Your task to perform on an android device: Check the weather Image 0: 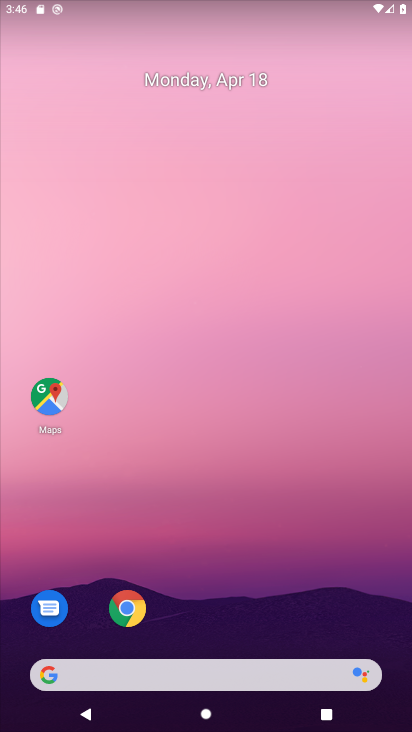
Step 0: drag from (331, 234) to (338, 162)
Your task to perform on an android device: Check the weather Image 1: 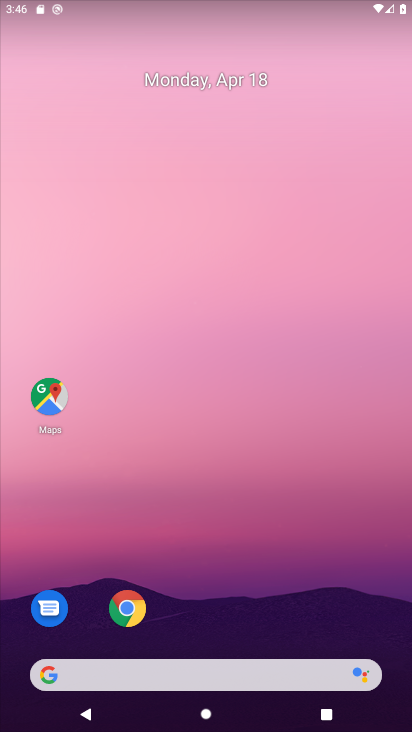
Step 1: drag from (341, 222) to (343, 155)
Your task to perform on an android device: Check the weather Image 2: 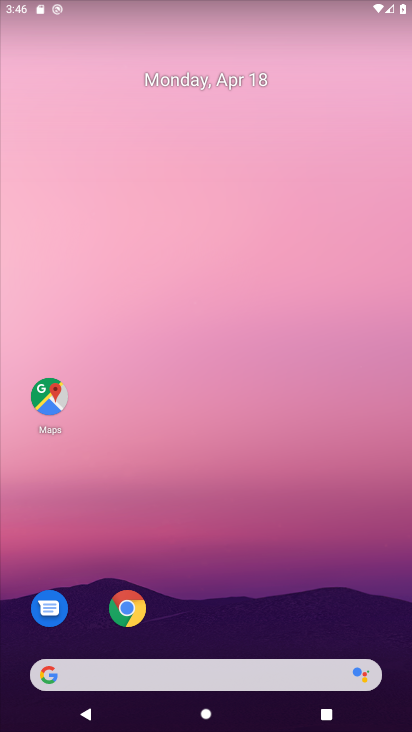
Step 2: drag from (28, 259) to (386, 225)
Your task to perform on an android device: Check the weather Image 3: 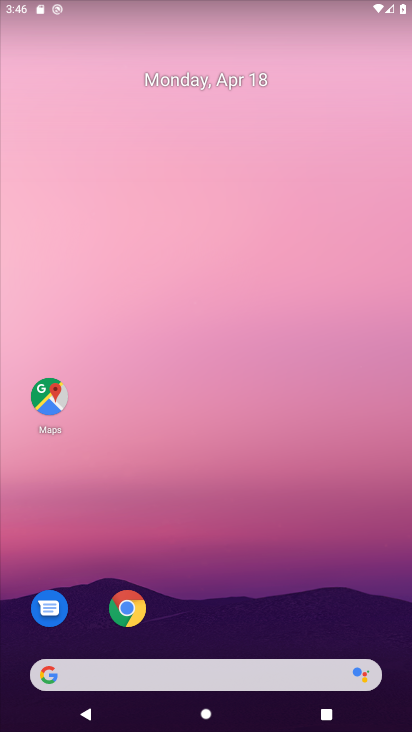
Step 3: drag from (14, 265) to (324, 296)
Your task to perform on an android device: Check the weather Image 4: 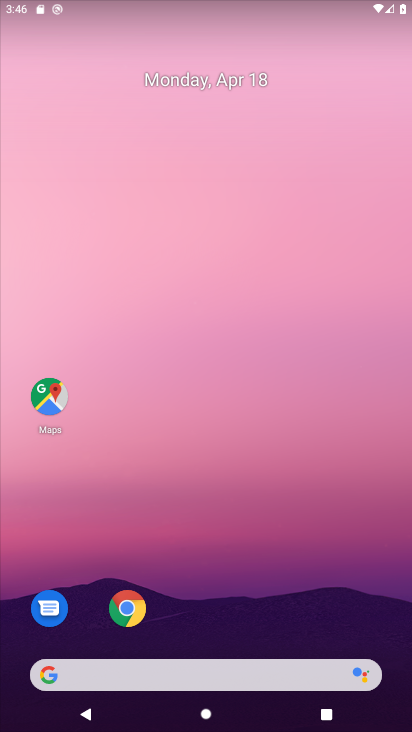
Step 4: click (377, 272)
Your task to perform on an android device: Check the weather Image 5: 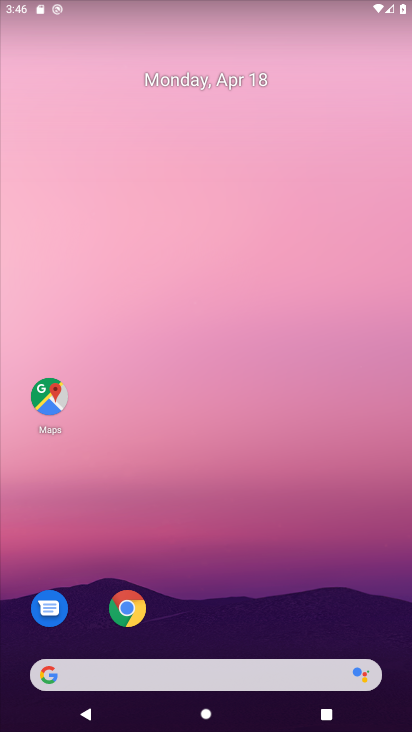
Step 5: drag from (201, 288) to (378, 287)
Your task to perform on an android device: Check the weather Image 6: 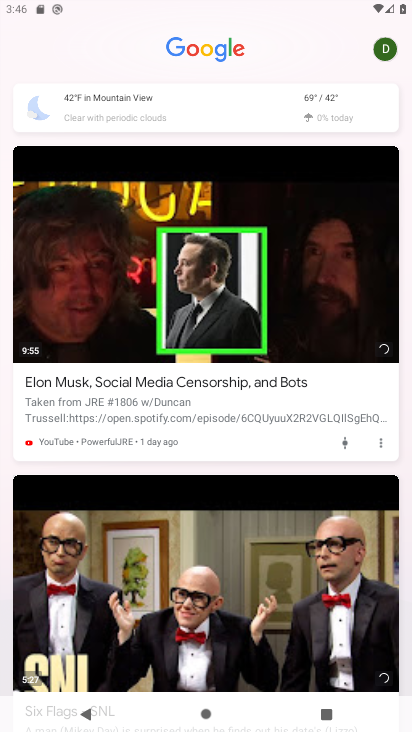
Step 6: click (188, 109)
Your task to perform on an android device: Check the weather Image 7: 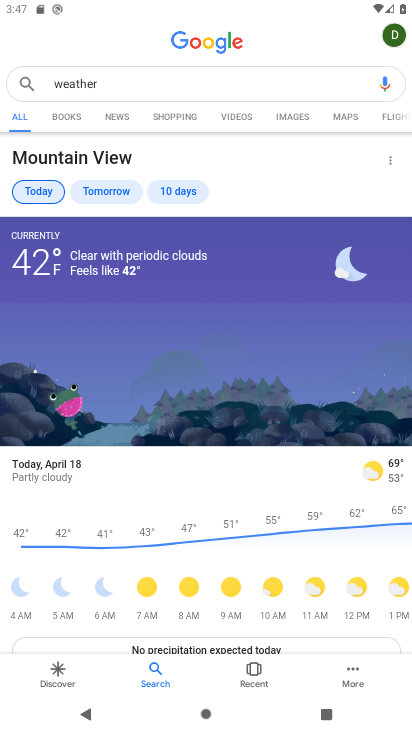
Step 7: task complete